Your task to perform on an android device: toggle translation in the chrome app Image 0: 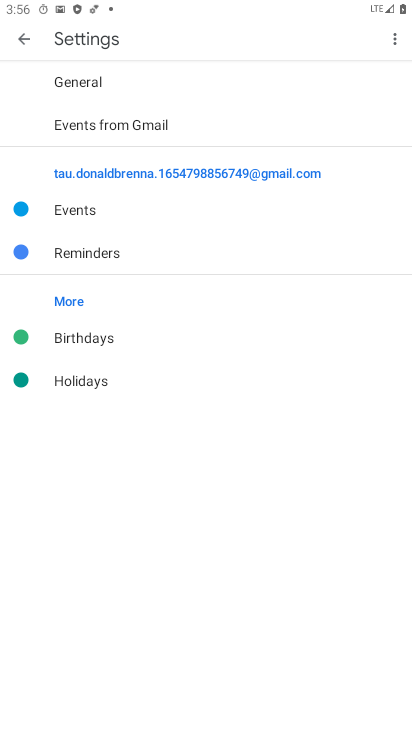
Step 0: press home button
Your task to perform on an android device: toggle translation in the chrome app Image 1: 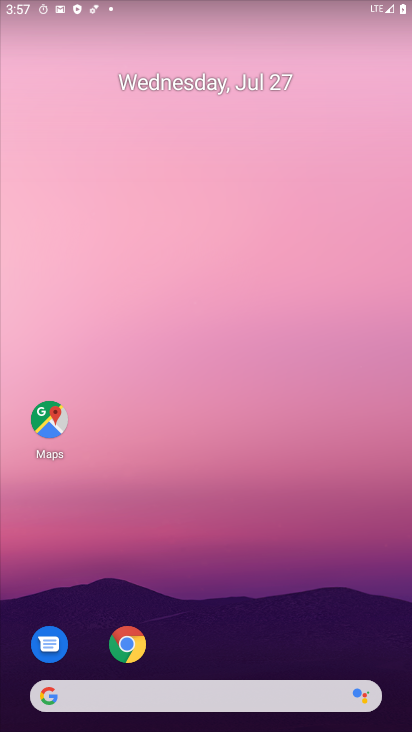
Step 1: click (130, 646)
Your task to perform on an android device: toggle translation in the chrome app Image 2: 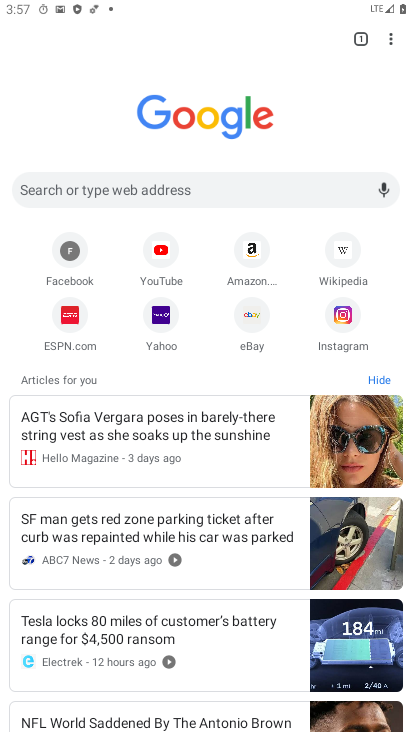
Step 2: click (392, 40)
Your task to perform on an android device: toggle translation in the chrome app Image 3: 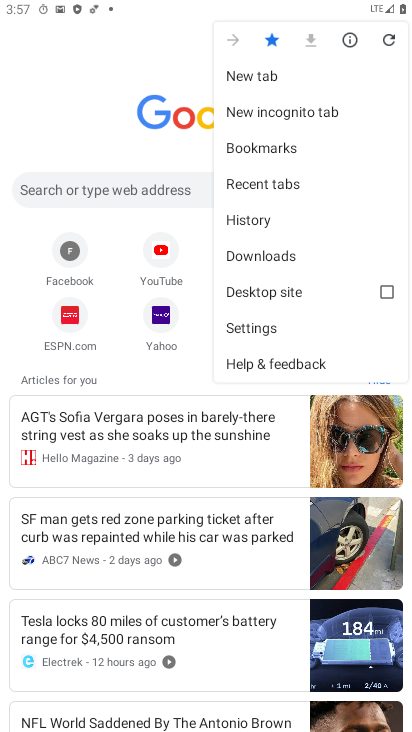
Step 3: click (252, 328)
Your task to perform on an android device: toggle translation in the chrome app Image 4: 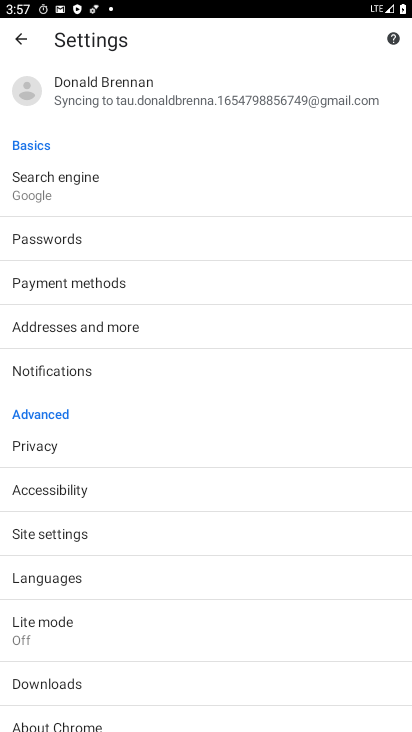
Step 4: click (58, 574)
Your task to perform on an android device: toggle translation in the chrome app Image 5: 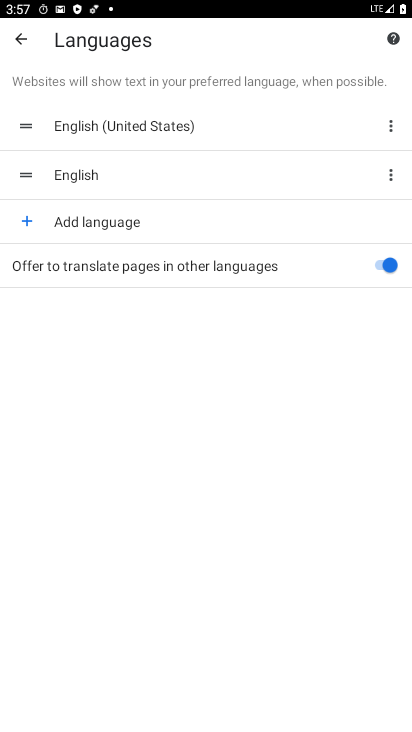
Step 5: click (383, 262)
Your task to perform on an android device: toggle translation in the chrome app Image 6: 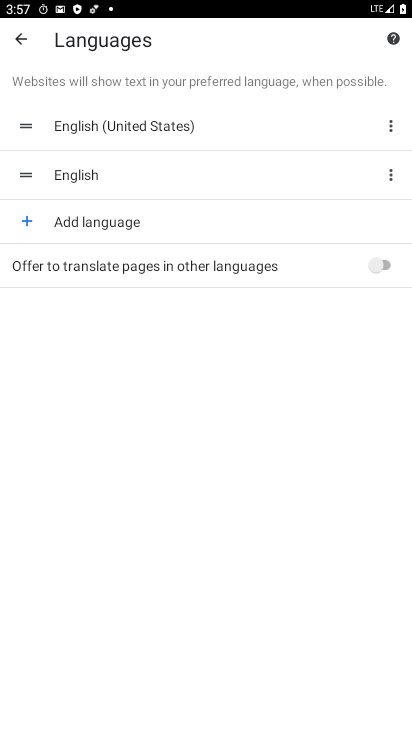
Step 6: task complete